Your task to perform on an android device: Open privacy settings Image 0: 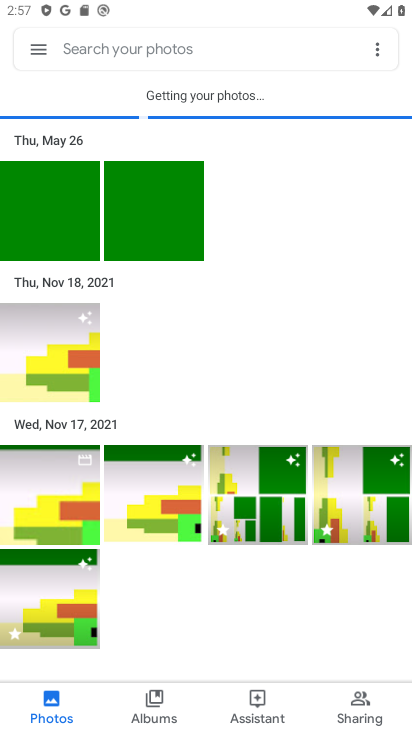
Step 0: press back button
Your task to perform on an android device: Open privacy settings Image 1: 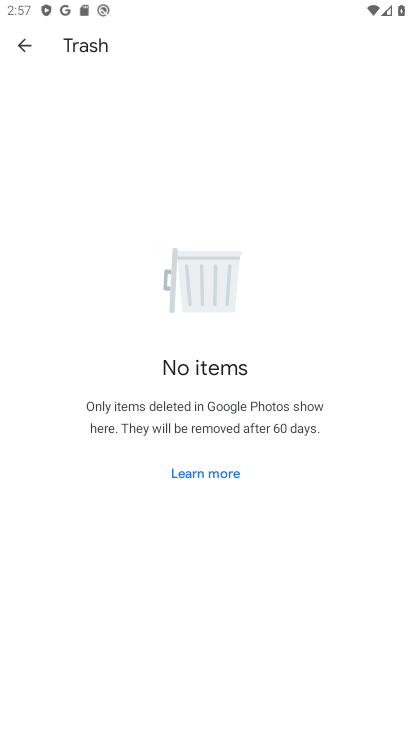
Step 1: press back button
Your task to perform on an android device: Open privacy settings Image 2: 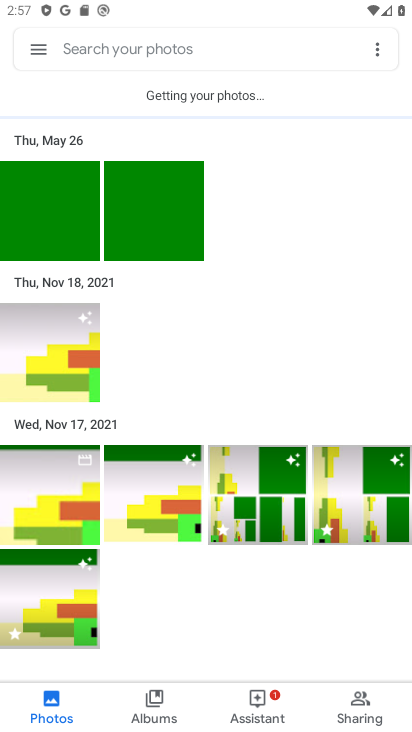
Step 2: press back button
Your task to perform on an android device: Open privacy settings Image 3: 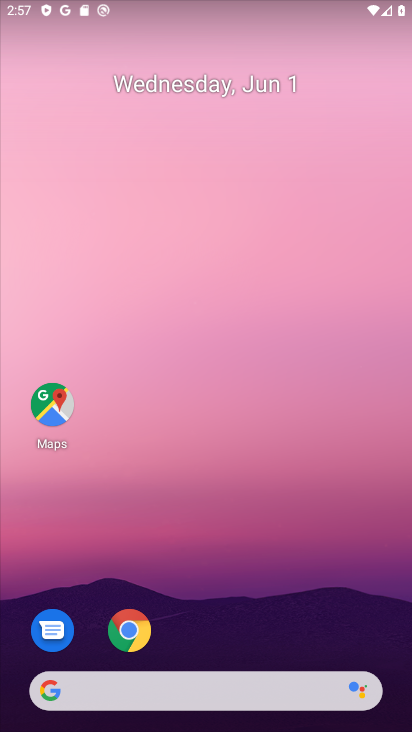
Step 3: drag from (253, 643) to (307, 123)
Your task to perform on an android device: Open privacy settings Image 4: 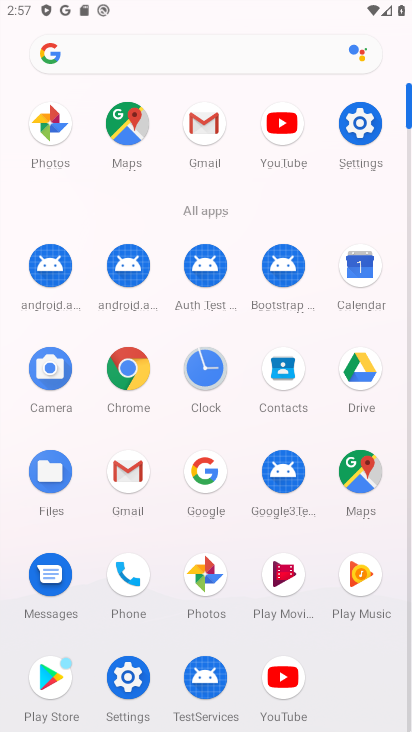
Step 4: click (371, 115)
Your task to perform on an android device: Open privacy settings Image 5: 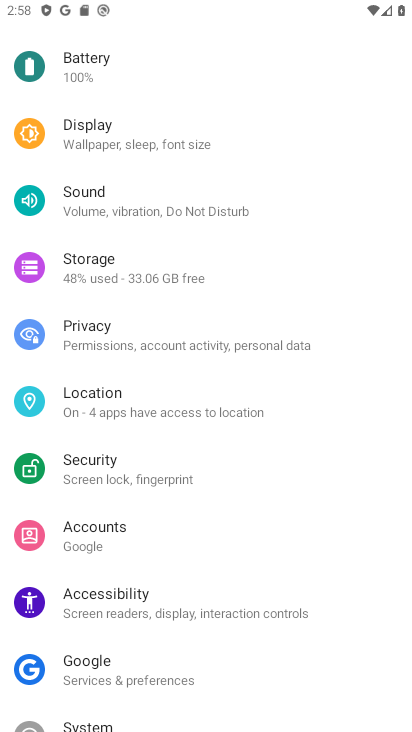
Step 5: click (109, 340)
Your task to perform on an android device: Open privacy settings Image 6: 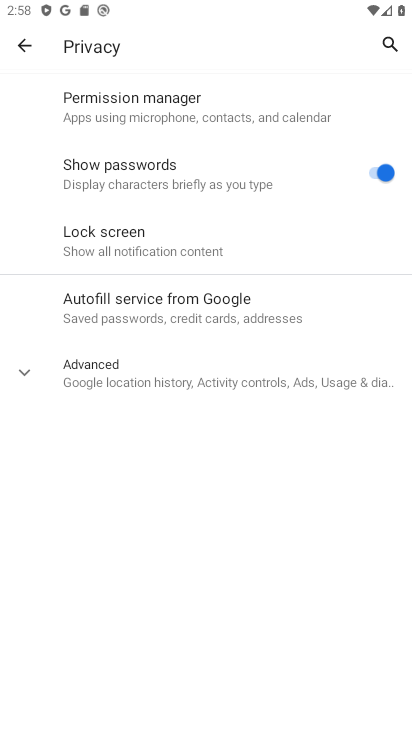
Step 6: task complete